Your task to perform on an android device: turn off priority inbox in the gmail app Image 0: 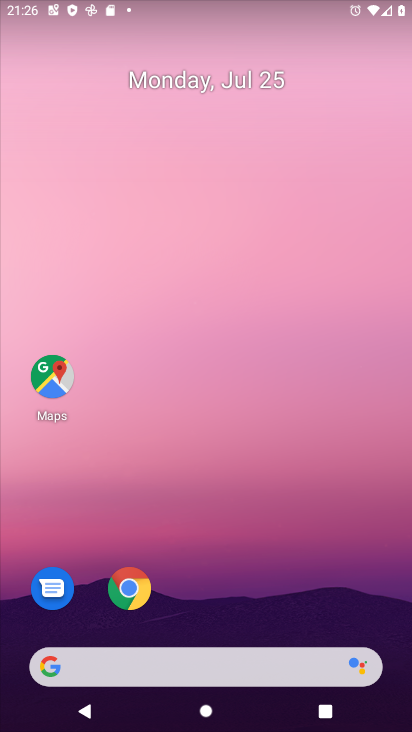
Step 0: drag from (253, 645) to (240, 180)
Your task to perform on an android device: turn off priority inbox in the gmail app Image 1: 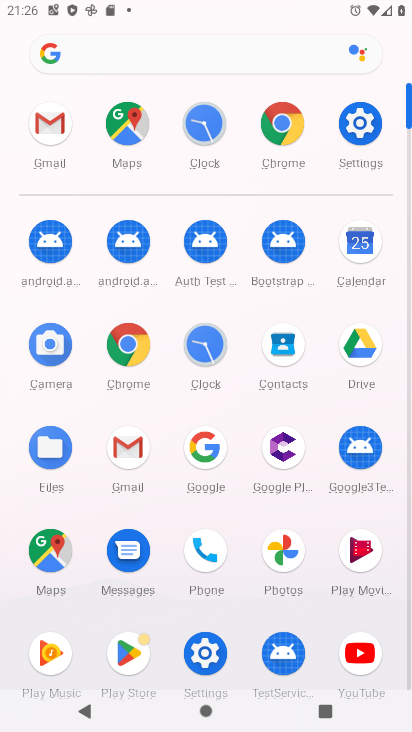
Step 1: click (127, 450)
Your task to perform on an android device: turn off priority inbox in the gmail app Image 2: 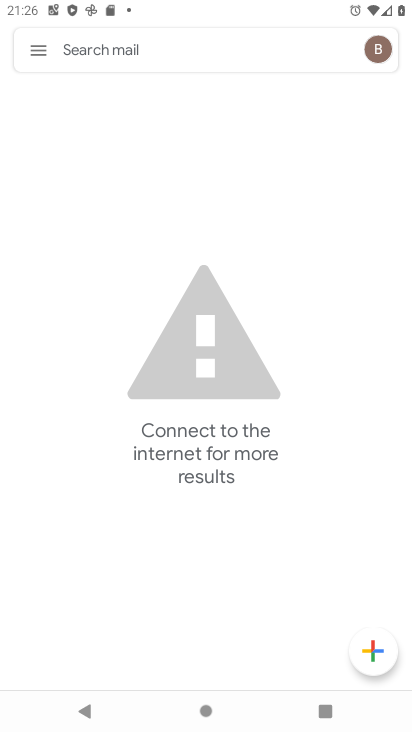
Step 2: click (35, 55)
Your task to perform on an android device: turn off priority inbox in the gmail app Image 3: 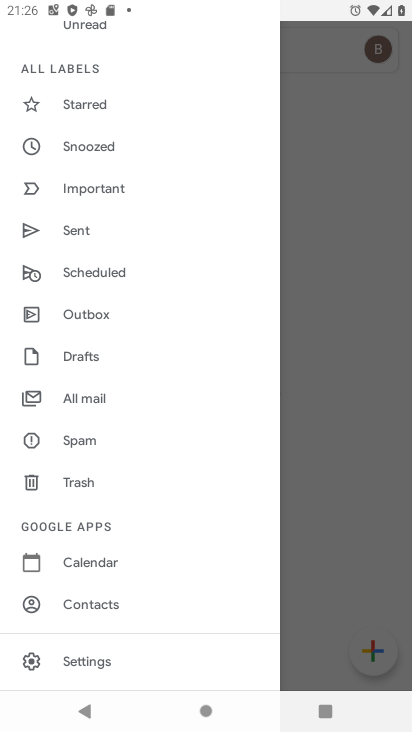
Step 3: click (94, 650)
Your task to perform on an android device: turn off priority inbox in the gmail app Image 4: 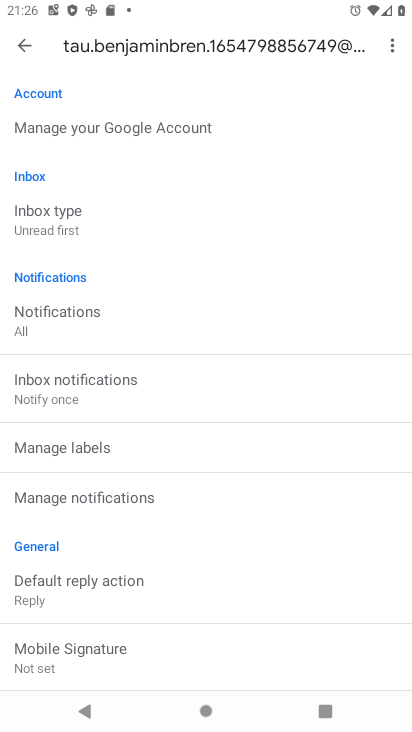
Step 4: click (60, 224)
Your task to perform on an android device: turn off priority inbox in the gmail app Image 5: 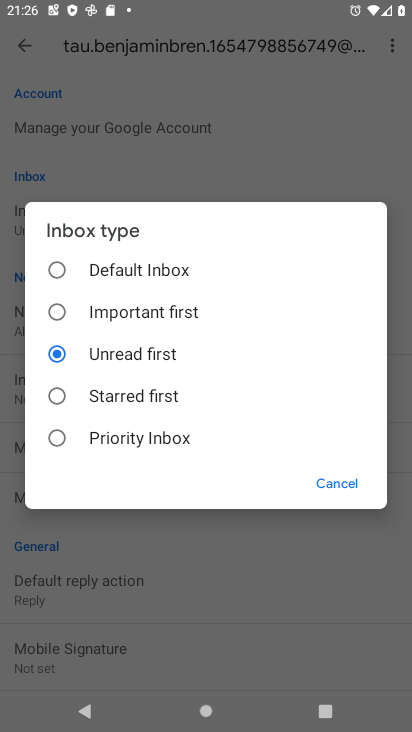
Step 5: click (336, 485)
Your task to perform on an android device: turn off priority inbox in the gmail app Image 6: 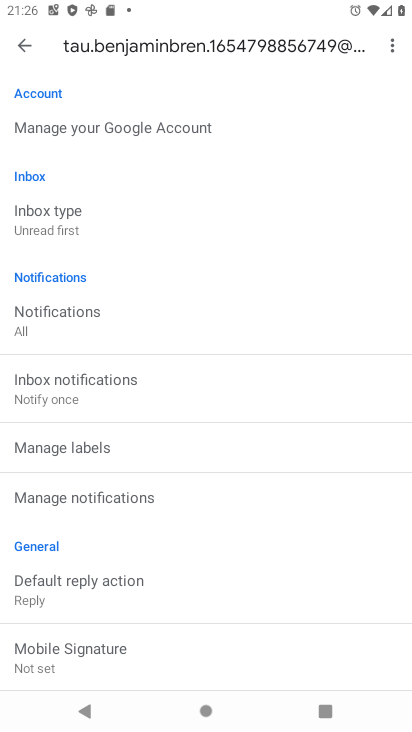
Step 6: task complete